Your task to perform on an android device: Go to network settings Image 0: 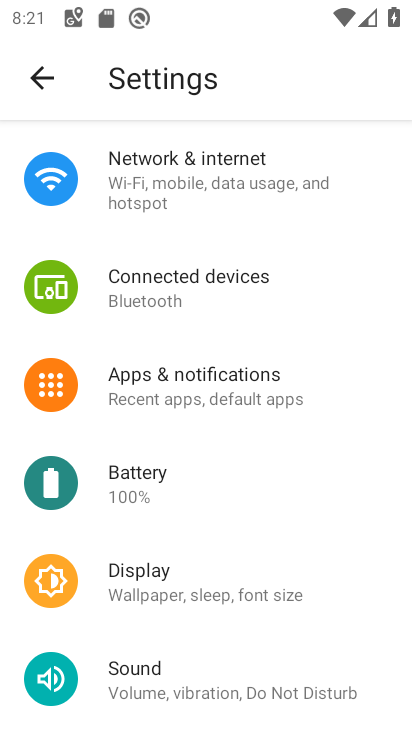
Step 0: press home button
Your task to perform on an android device: Go to network settings Image 1: 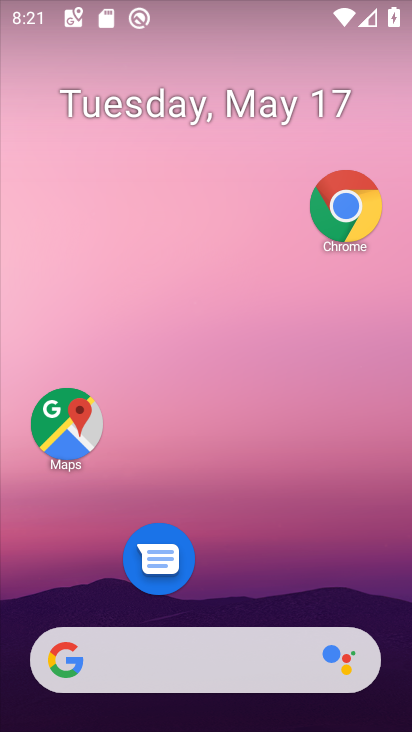
Step 1: drag from (265, 664) to (298, 151)
Your task to perform on an android device: Go to network settings Image 2: 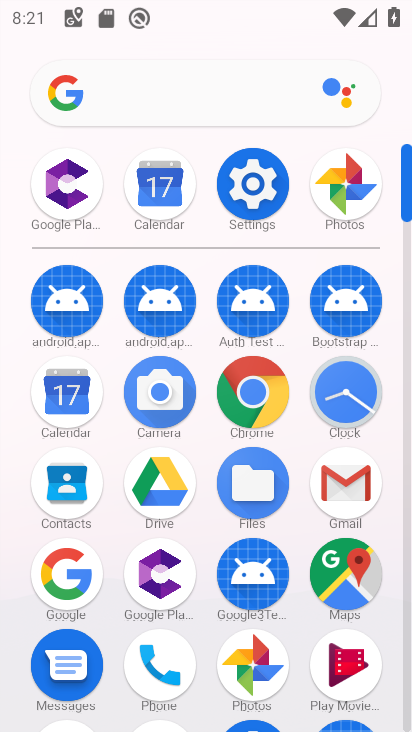
Step 2: click (274, 201)
Your task to perform on an android device: Go to network settings Image 3: 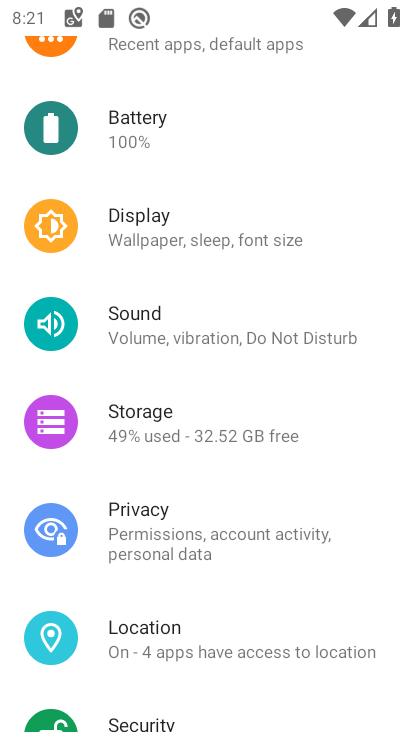
Step 3: drag from (259, 283) to (278, 476)
Your task to perform on an android device: Go to network settings Image 4: 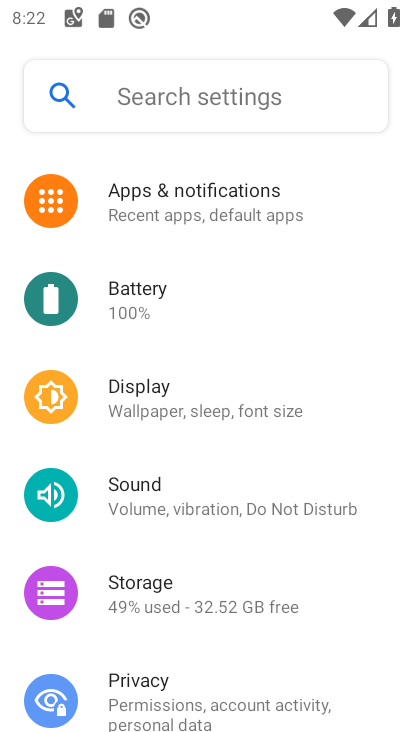
Step 4: drag from (253, 246) to (244, 706)
Your task to perform on an android device: Go to network settings Image 5: 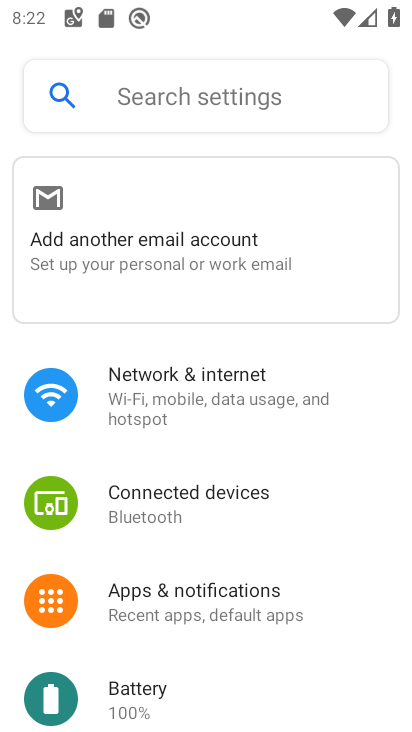
Step 5: click (264, 407)
Your task to perform on an android device: Go to network settings Image 6: 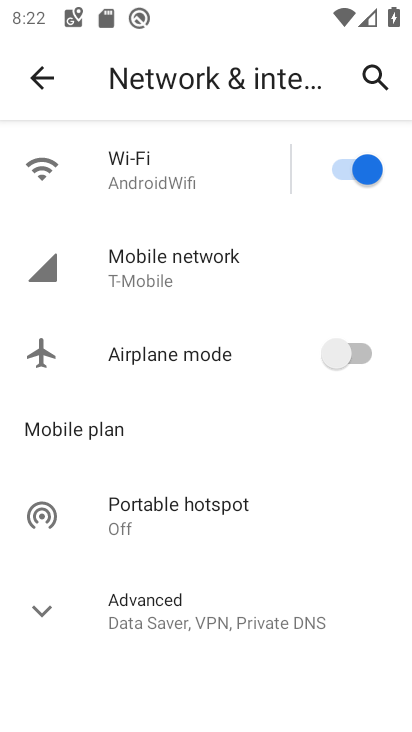
Step 6: click (211, 278)
Your task to perform on an android device: Go to network settings Image 7: 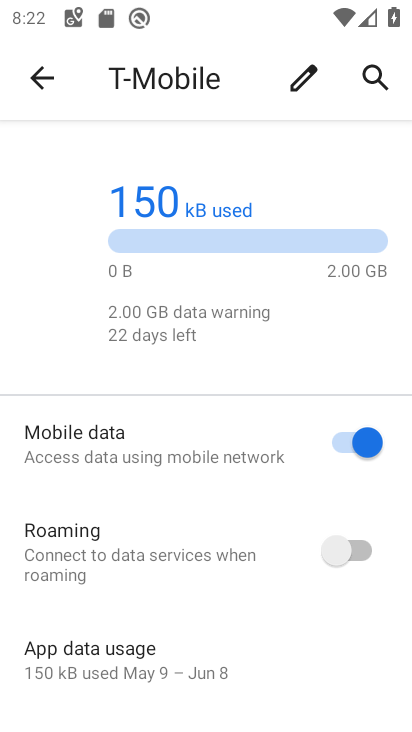
Step 7: task complete